Your task to perform on an android device: Open network settings Image 0: 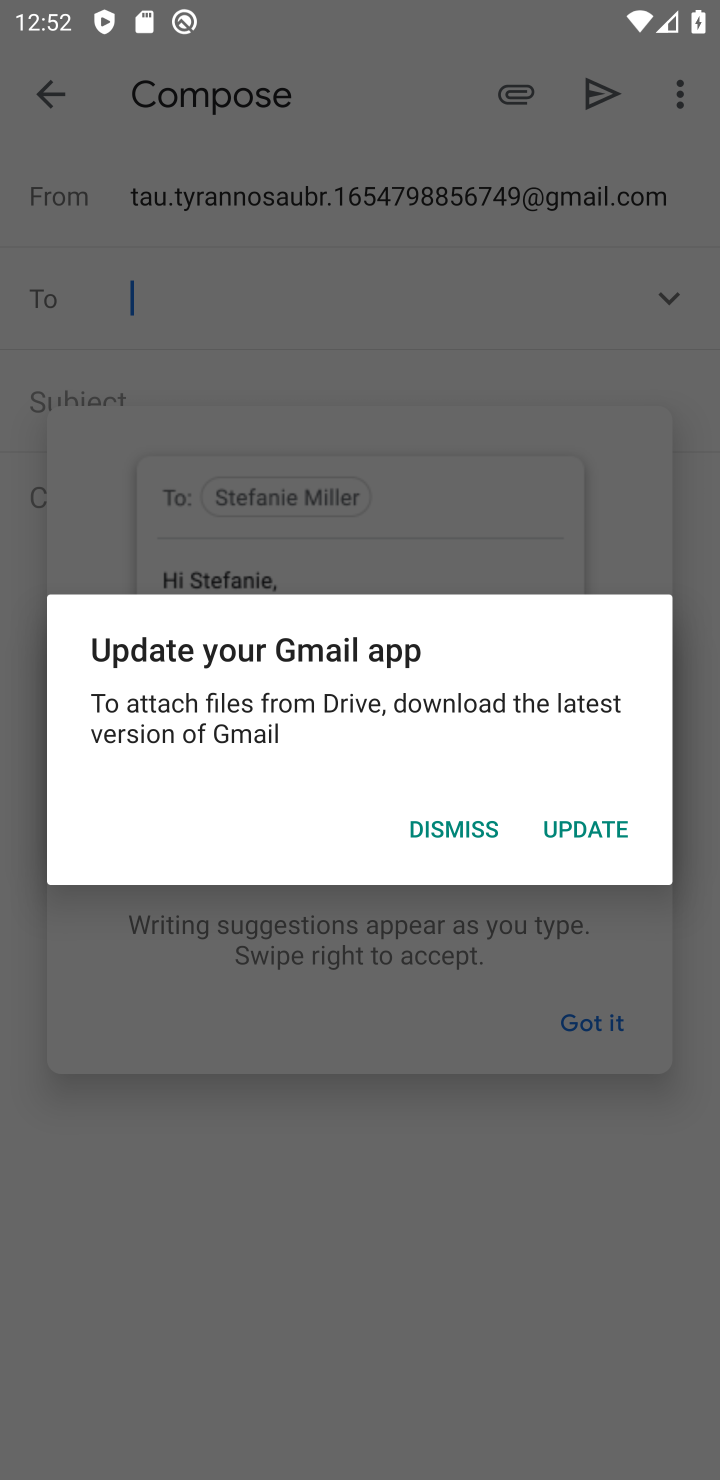
Step 0: press home button
Your task to perform on an android device: Open network settings Image 1: 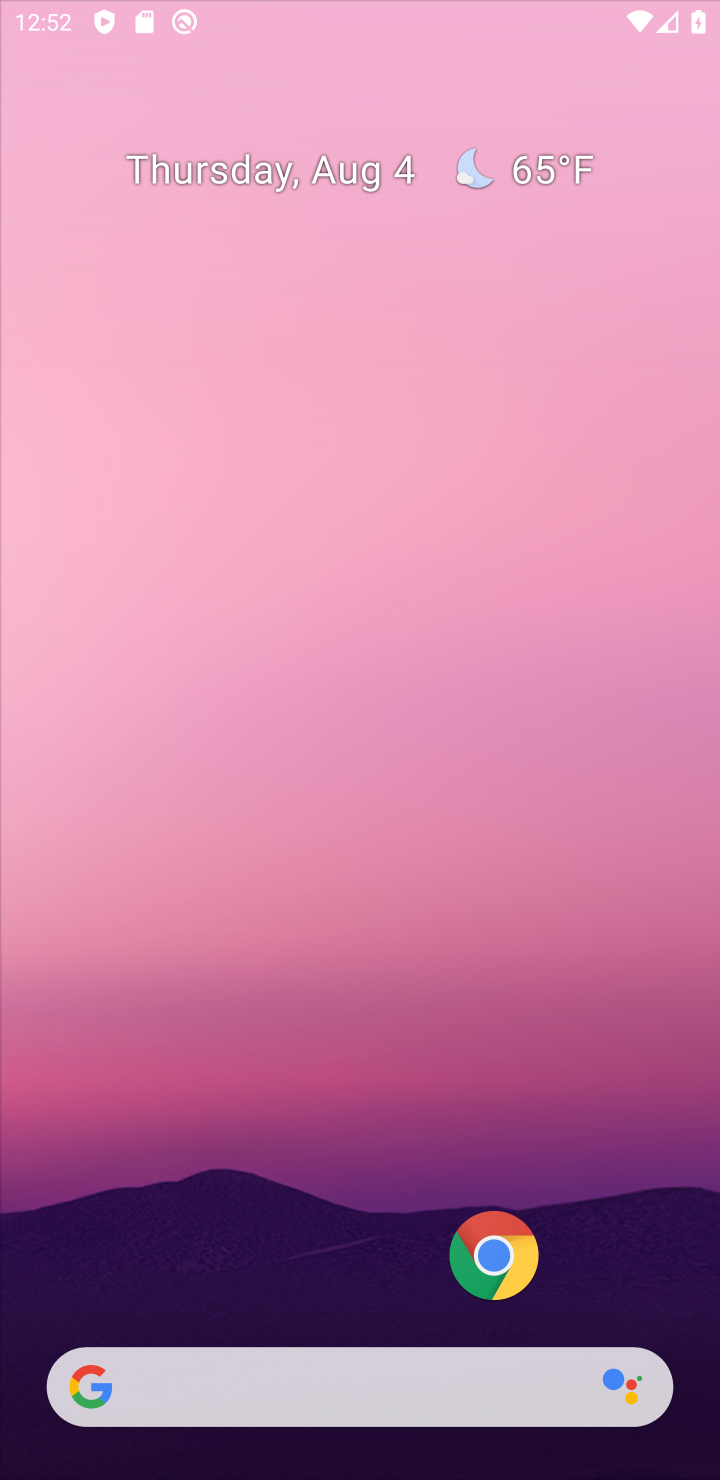
Step 1: drag from (357, 1254) to (526, 92)
Your task to perform on an android device: Open network settings Image 2: 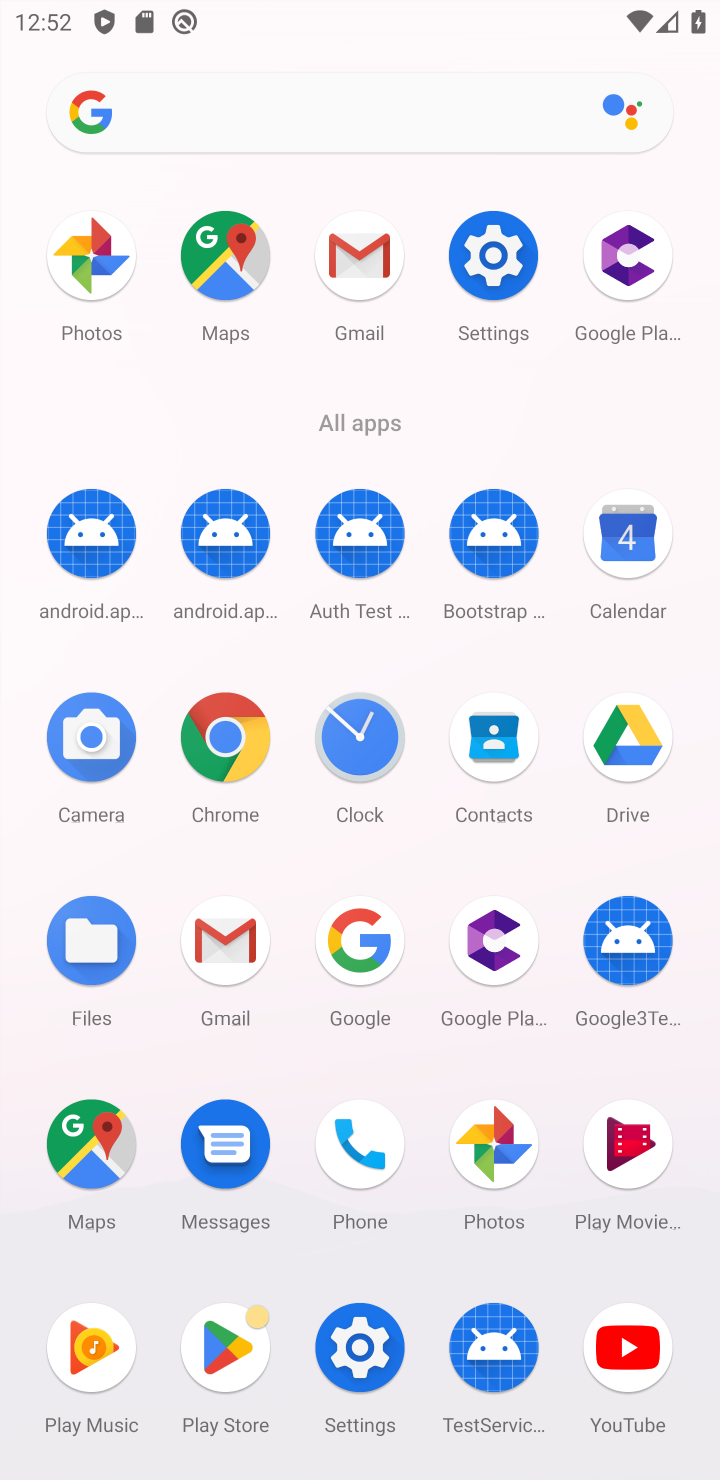
Step 2: click (499, 270)
Your task to perform on an android device: Open network settings Image 3: 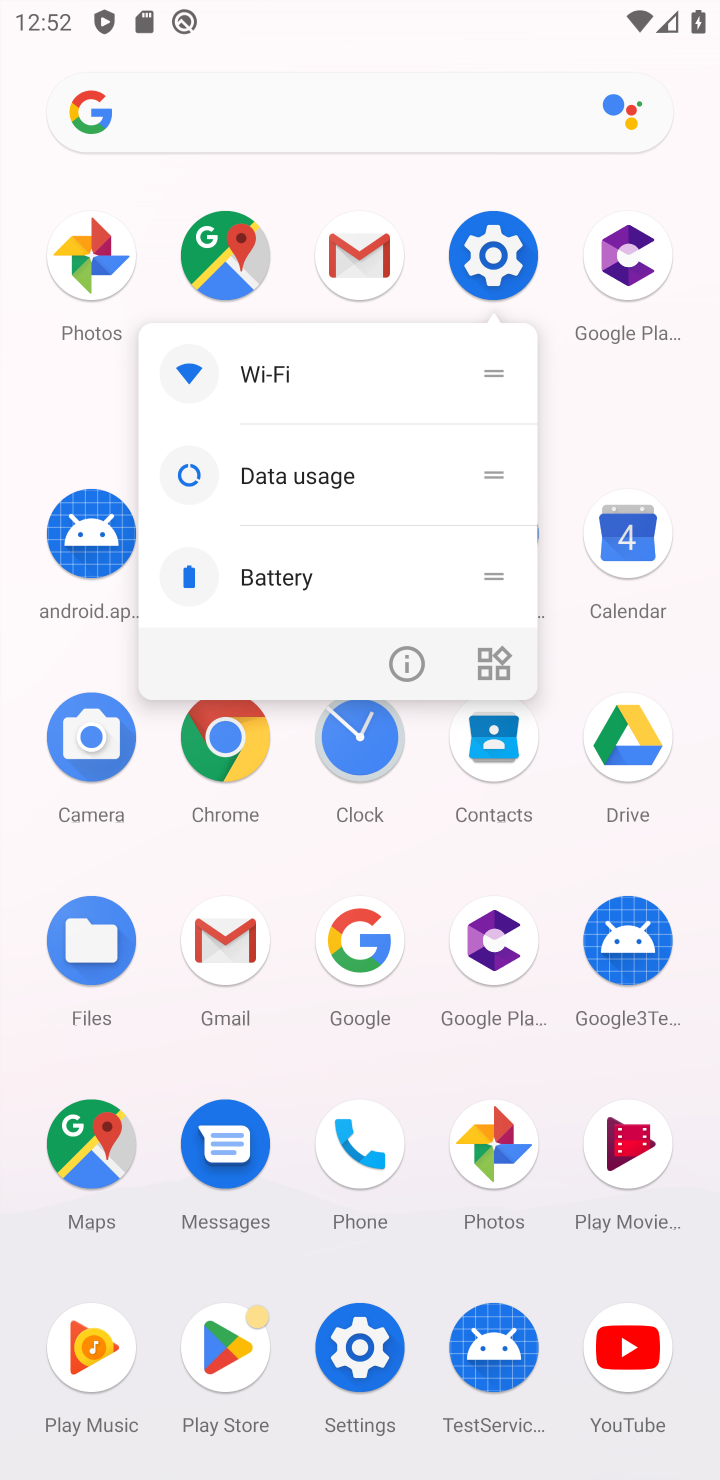
Step 3: click (499, 270)
Your task to perform on an android device: Open network settings Image 4: 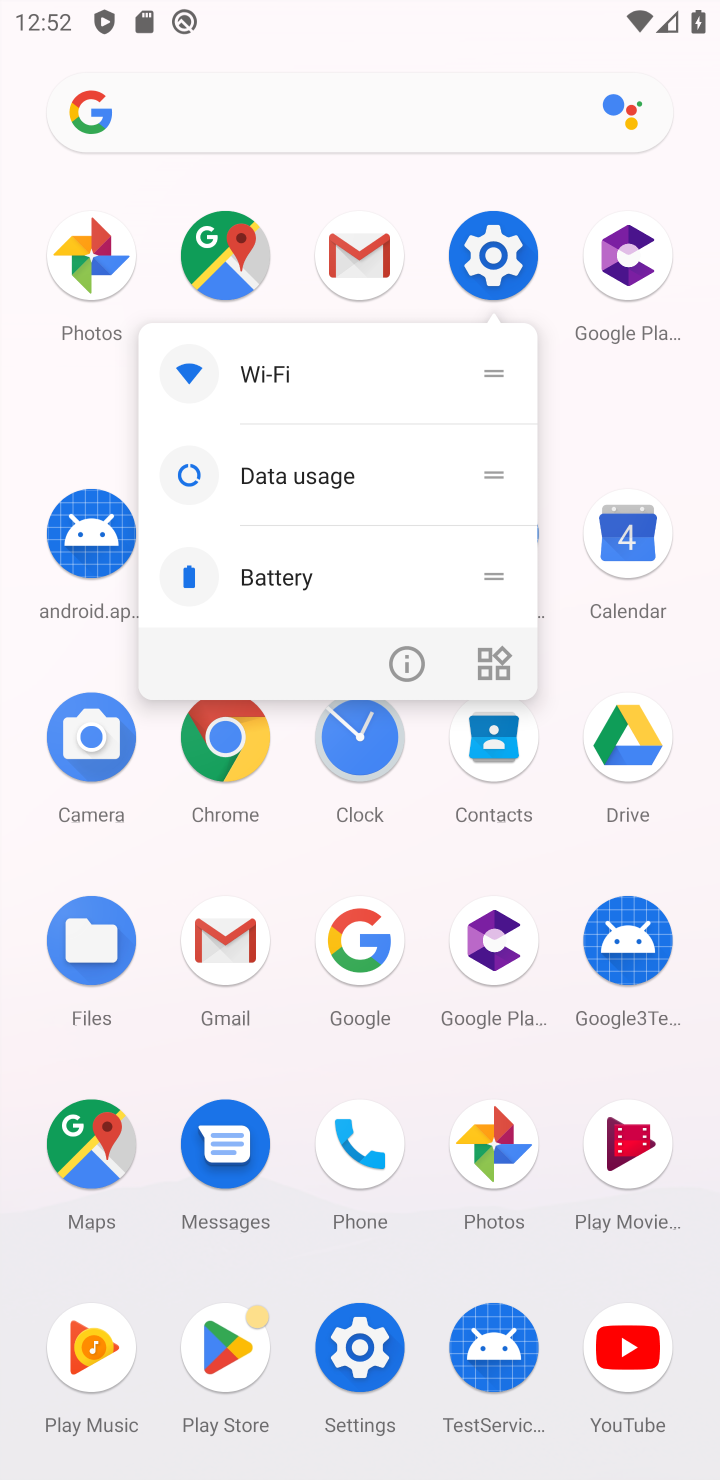
Step 4: click (499, 270)
Your task to perform on an android device: Open network settings Image 5: 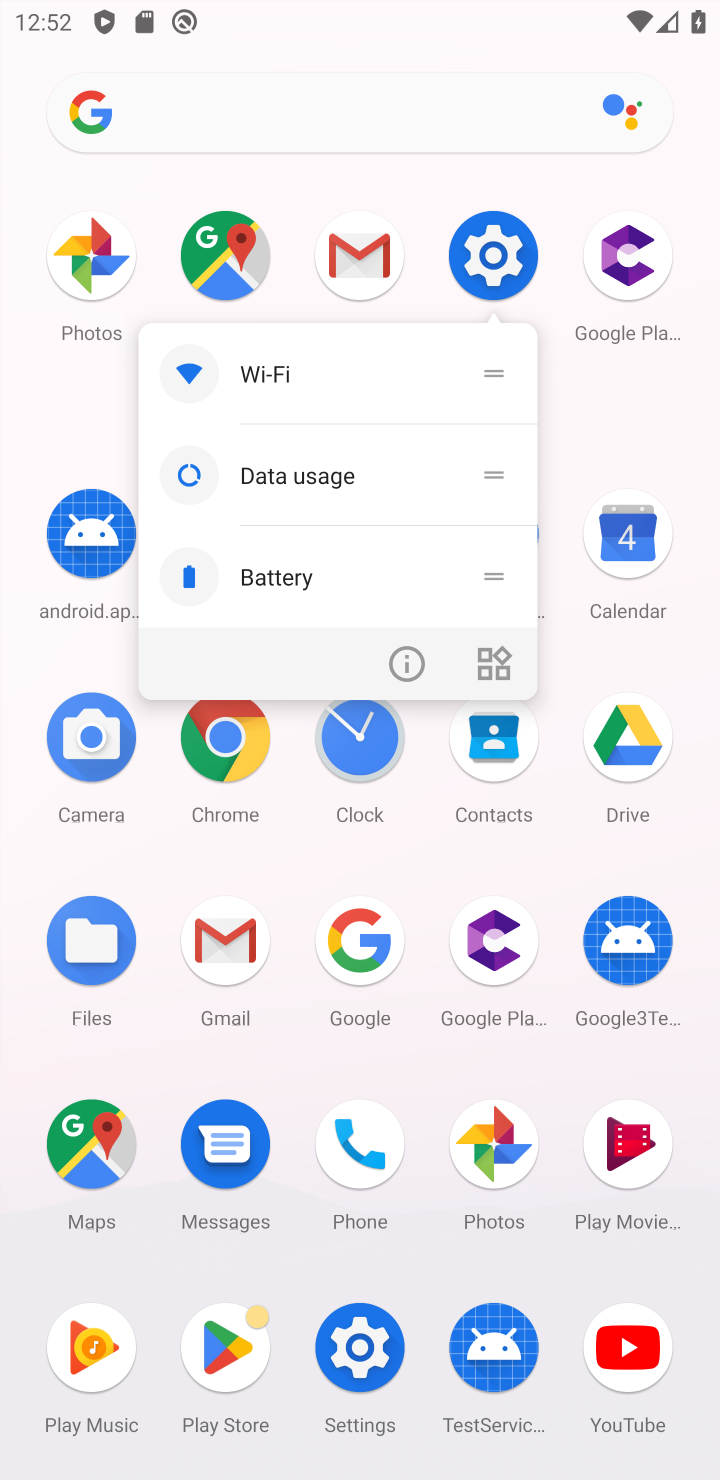
Step 5: click (501, 242)
Your task to perform on an android device: Open network settings Image 6: 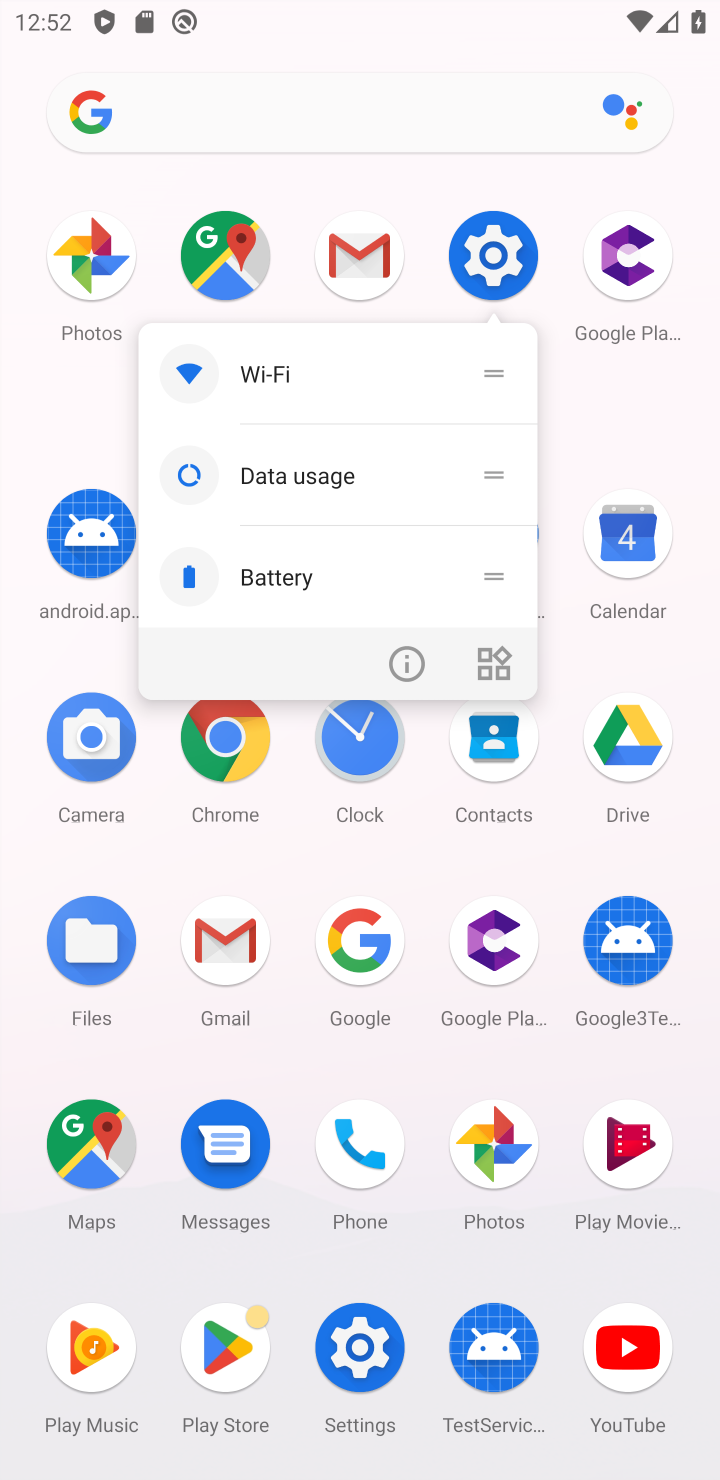
Step 6: click (501, 242)
Your task to perform on an android device: Open network settings Image 7: 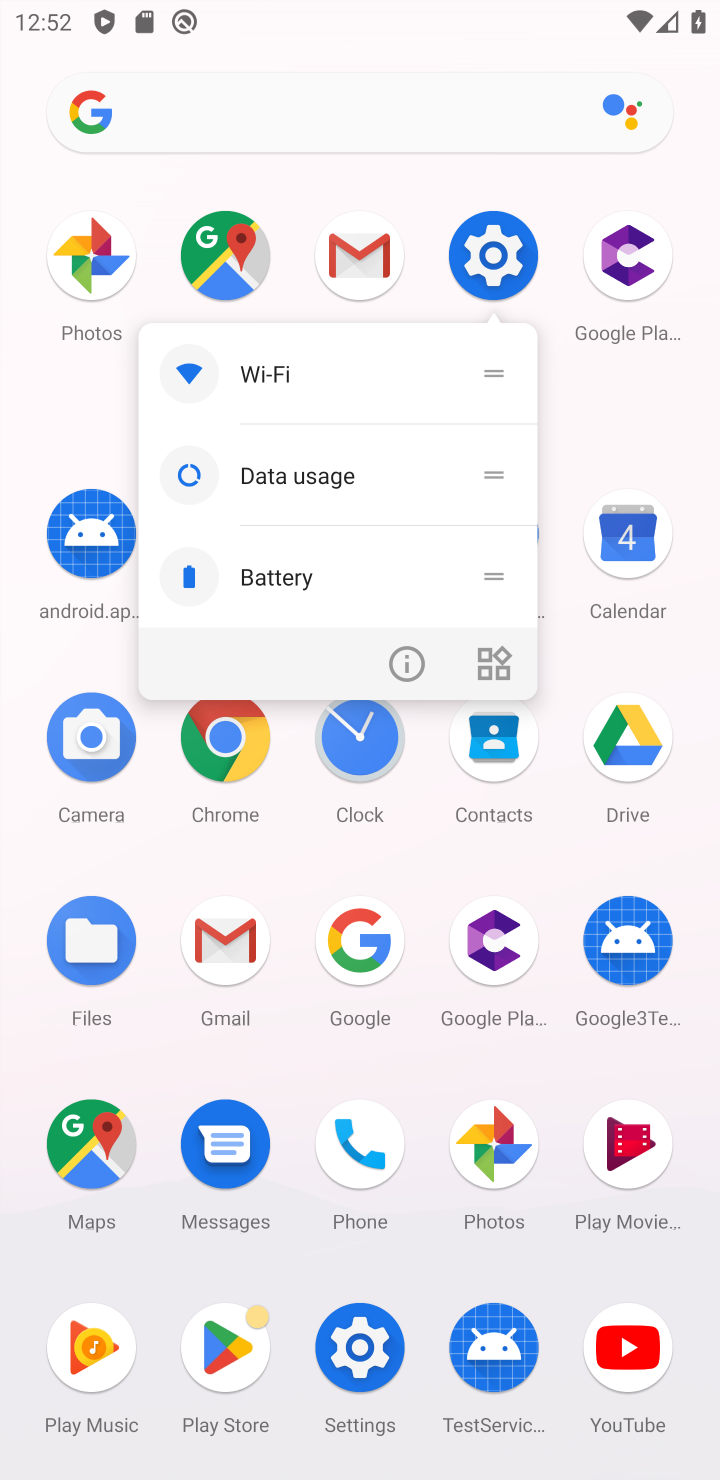
Step 7: click (501, 242)
Your task to perform on an android device: Open network settings Image 8: 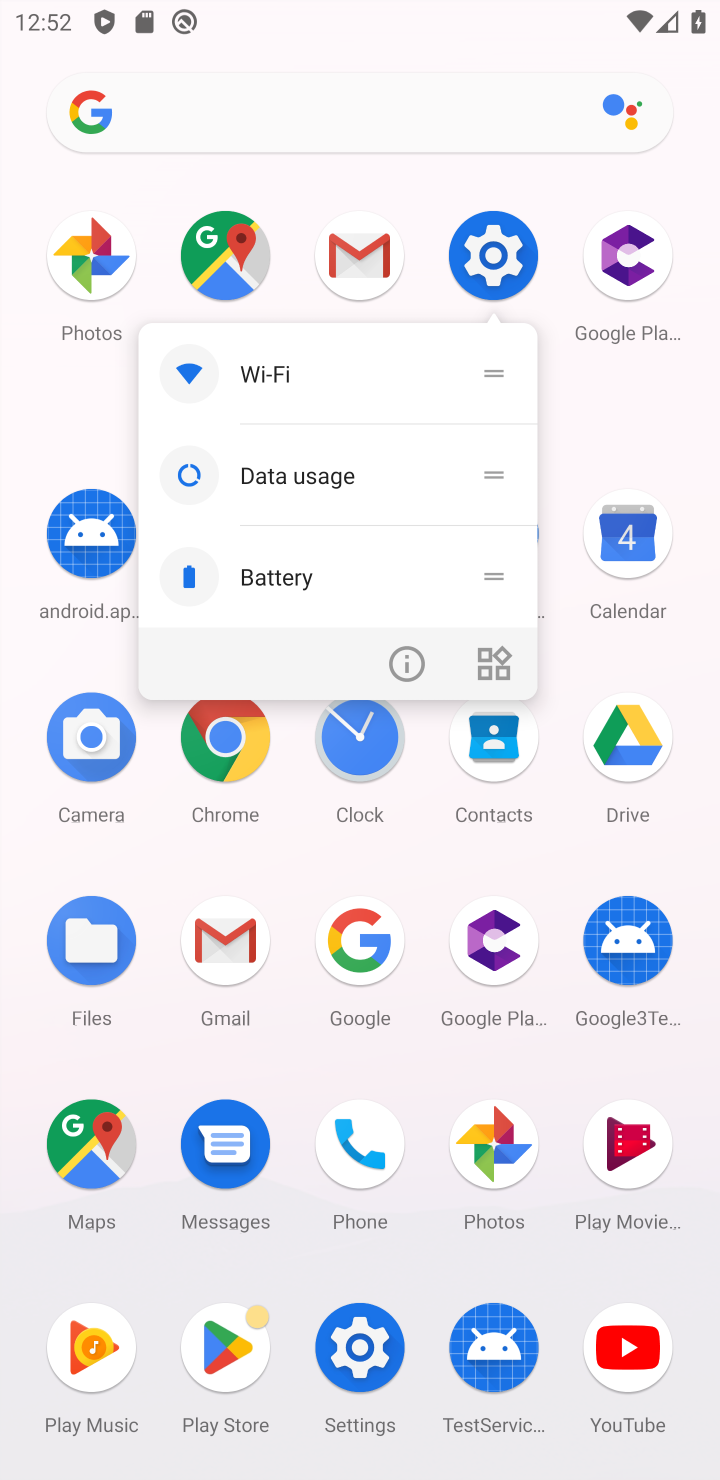
Step 8: click (474, 260)
Your task to perform on an android device: Open network settings Image 9: 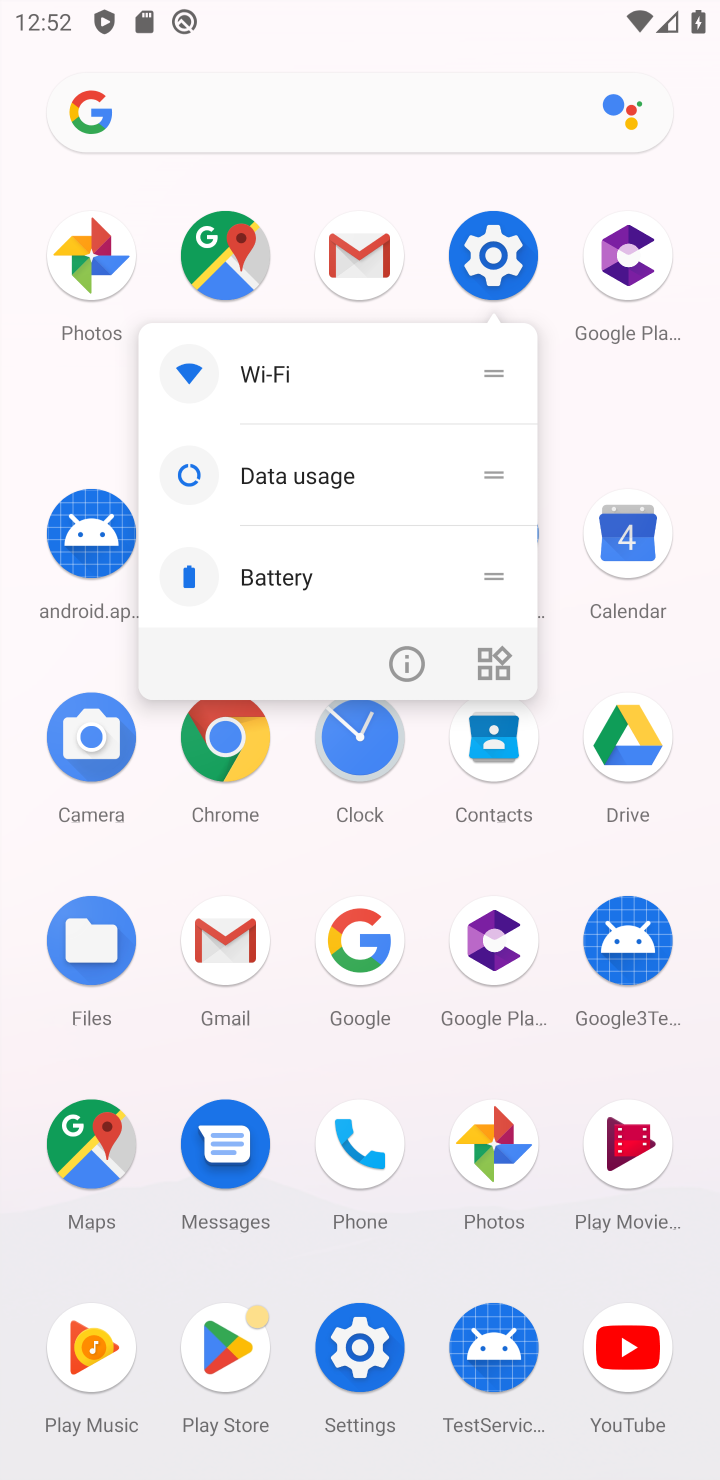
Step 9: click (474, 260)
Your task to perform on an android device: Open network settings Image 10: 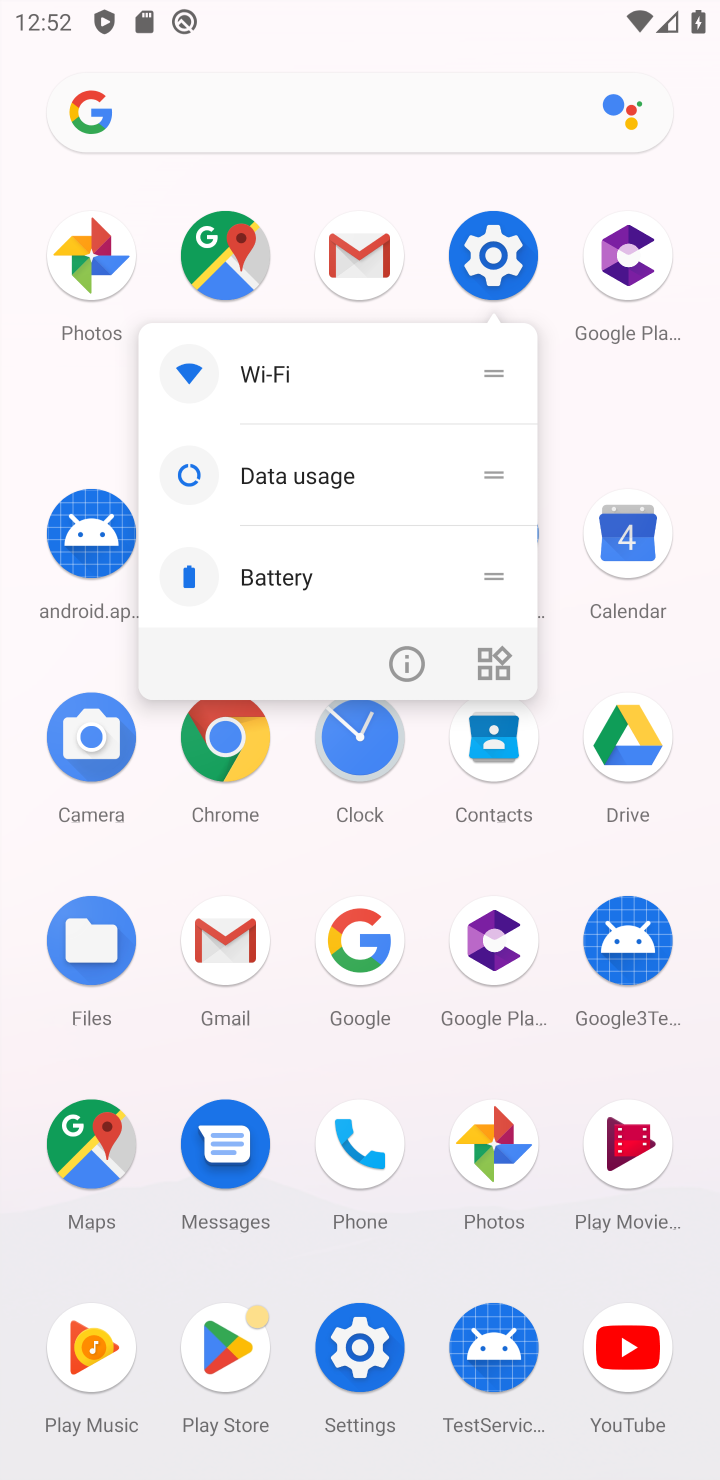
Step 10: click (498, 252)
Your task to perform on an android device: Open network settings Image 11: 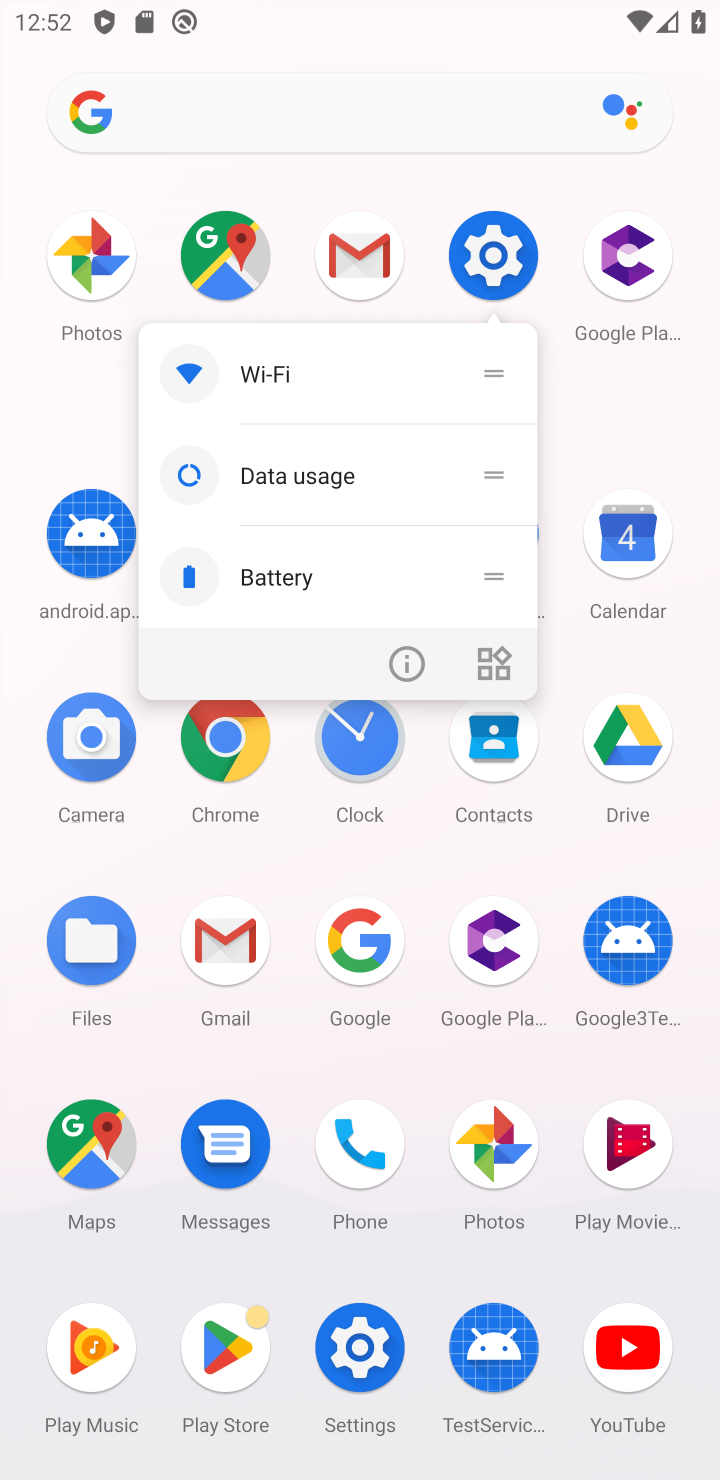
Step 11: click (498, 252)
Your task to perform on an android device: Open network settings Image 12: 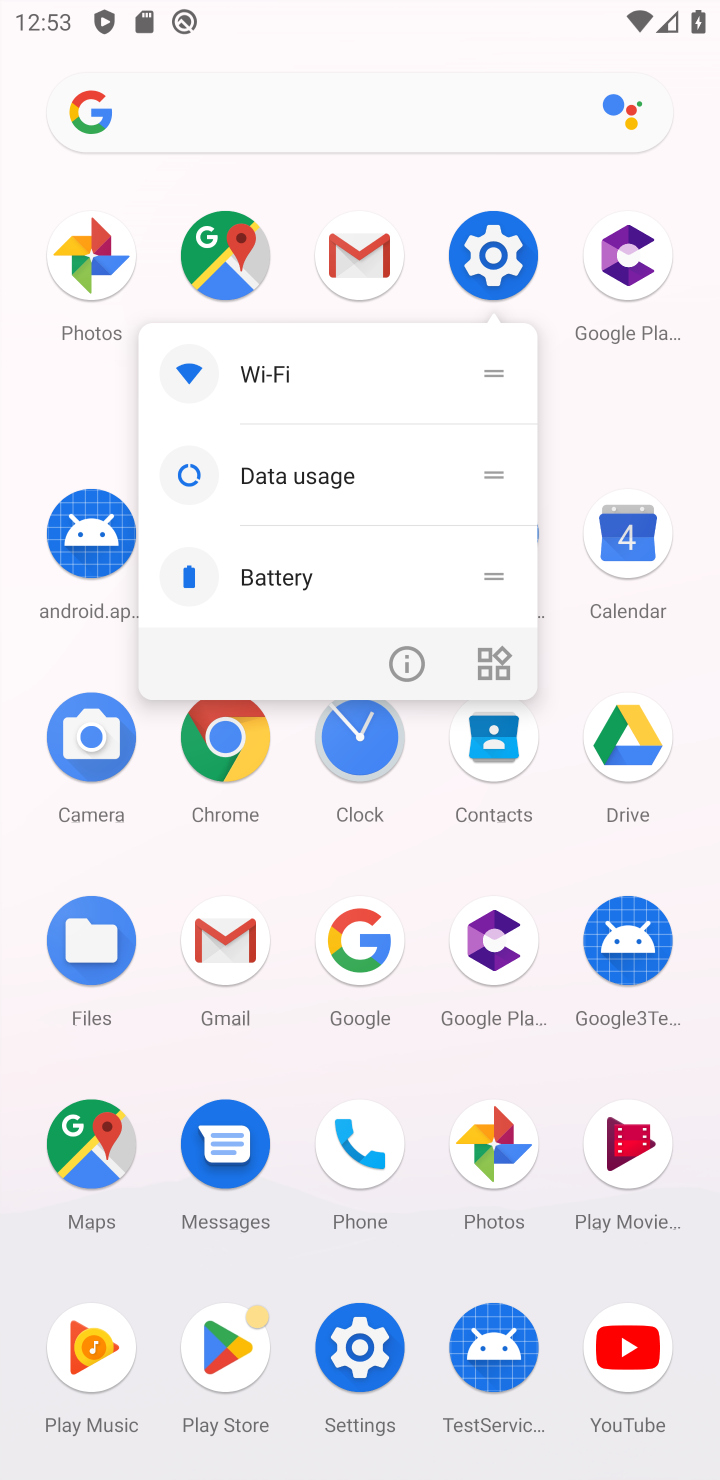
Step 12: click (498, 252)
Your task to perform on an android device: Open network settings Image 13: 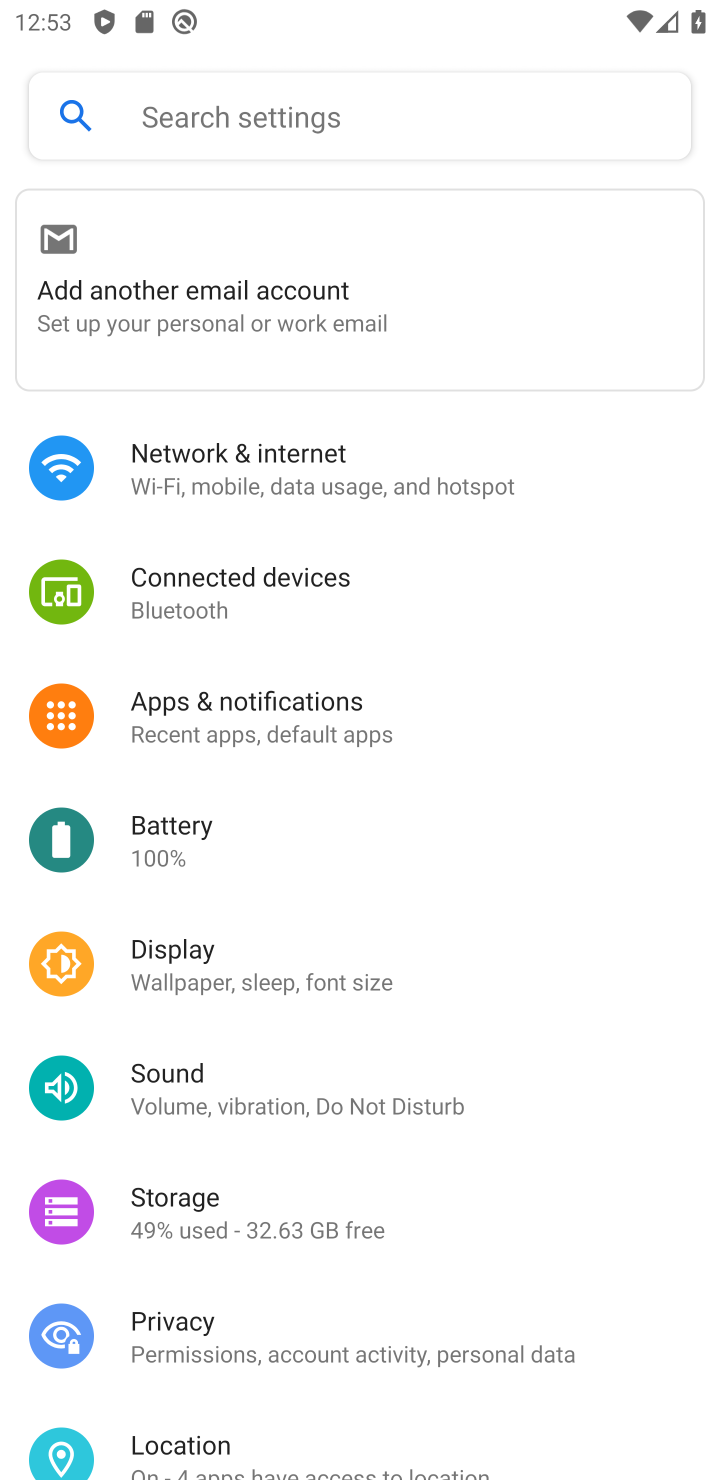
Step 13: click (186, 446)
Your task to perform on an android device: Open network settings Image 14: 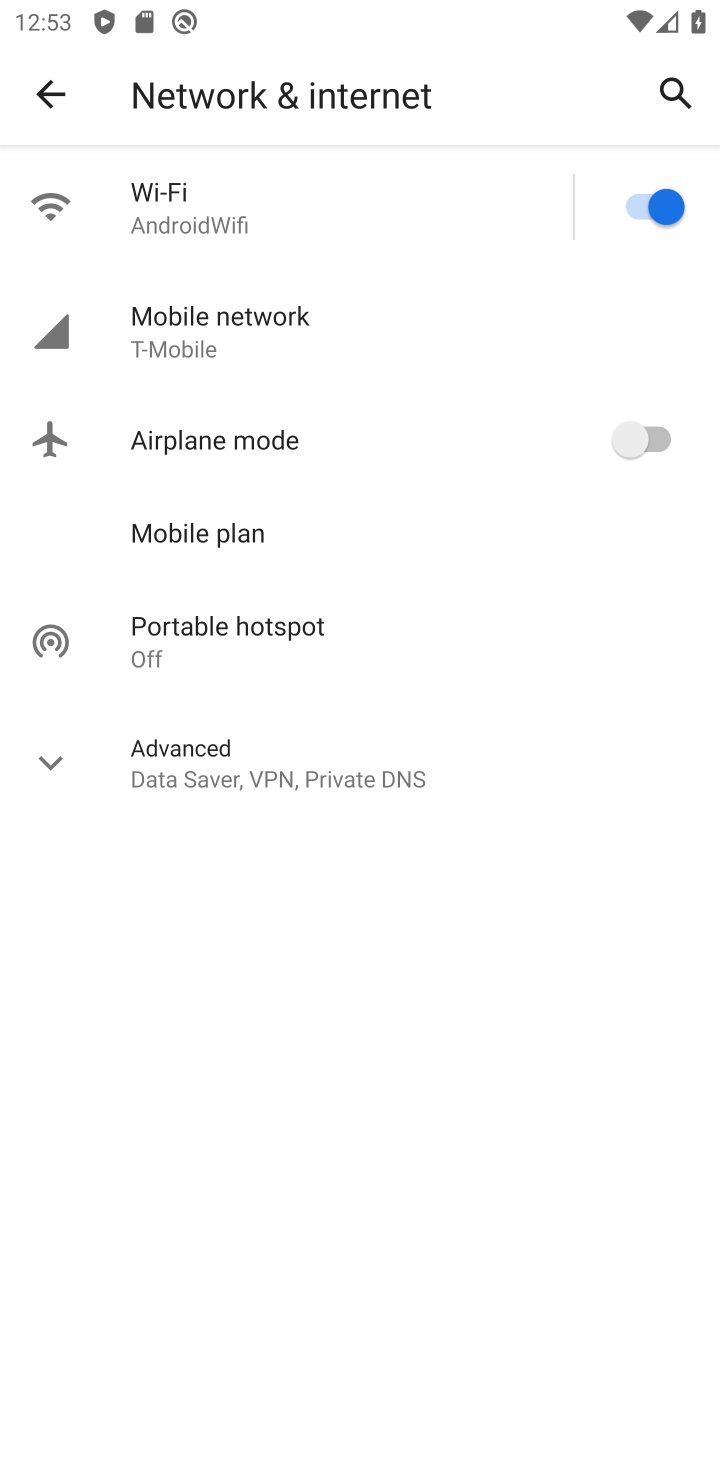
Step 14: task complete